Your task to perform on an android device: create a new album in the google photos Image 0: 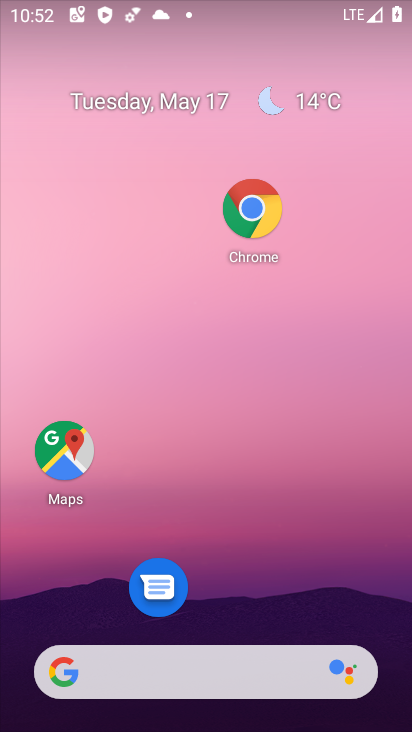
Step 0: drag from (266, 599) to (252, 233)
Your task to perform on an android device: create a new album in the google photos Image 1: 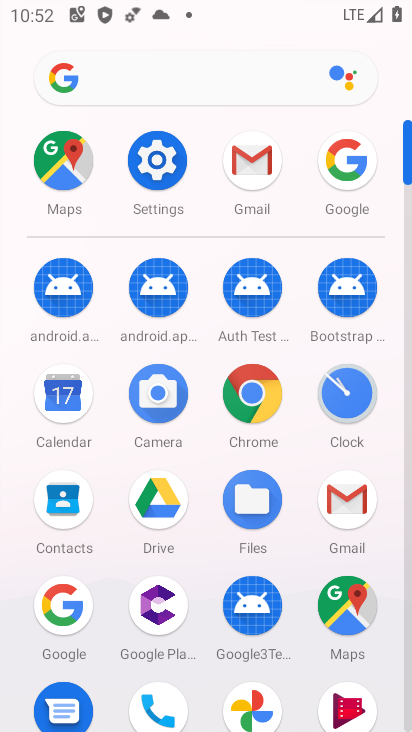
Step 1: click (268, 694)
Your task to perform on an android device: create a new album in the google photos Image 2: 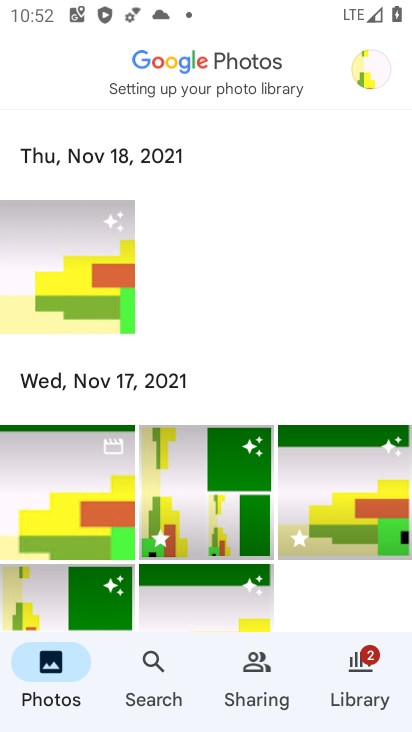
Step 2: click (371, 670)
Your task to perform on an android device: create a new album in the google photos Image 3: 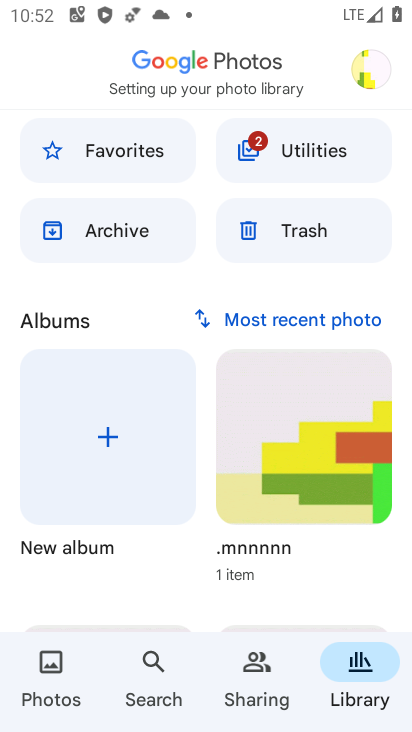
Step 3: click (112, 435)
Your task to perform on an android device: create a new album in the google photos Image 4: 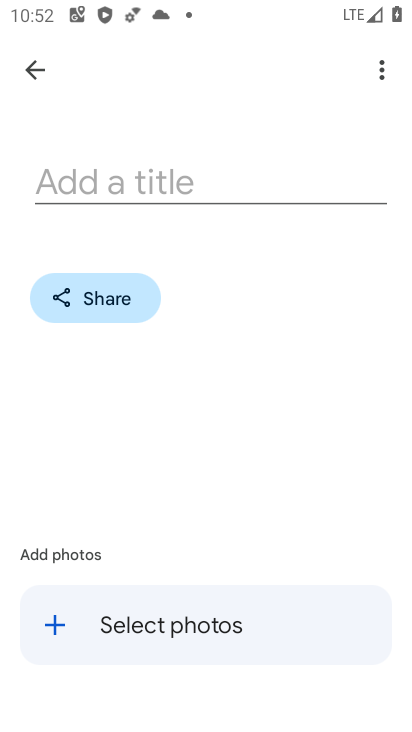
Step 4: click (243, 180)
Your task to perform on an android device: create a new album in the google photos Image 5: 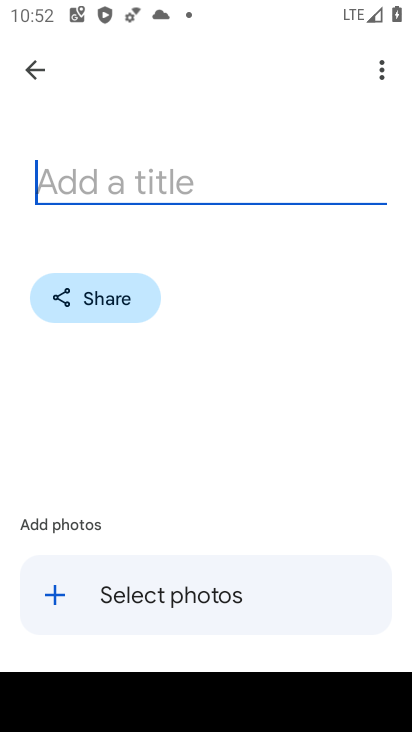
Step 5: type "yguyyu"
Your task to perform on an android device: create a new album in the google photos Image 6: 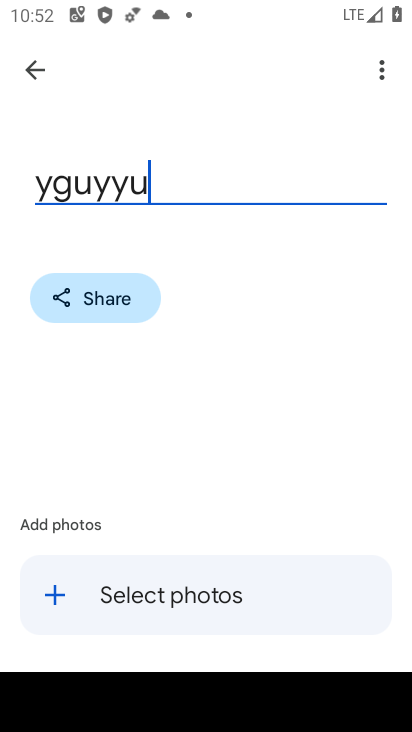
Step 6: click (58, 590)
Your task to perform on an android device: create a new album in the google photos Image 7: 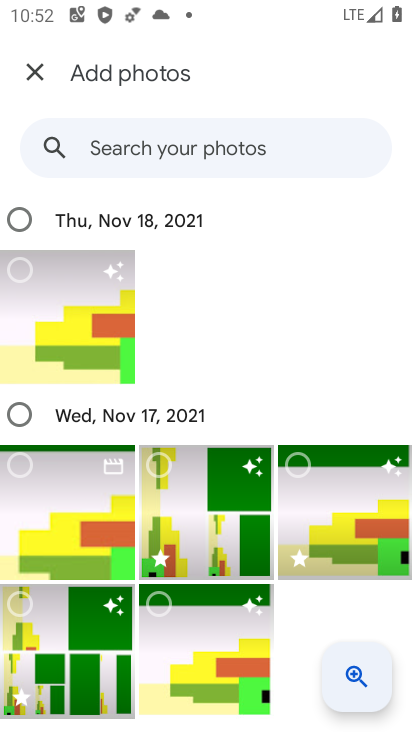
Step 7: click (21, 420)
Your task to perform on an android device: create a new album in the google photos Image 8: 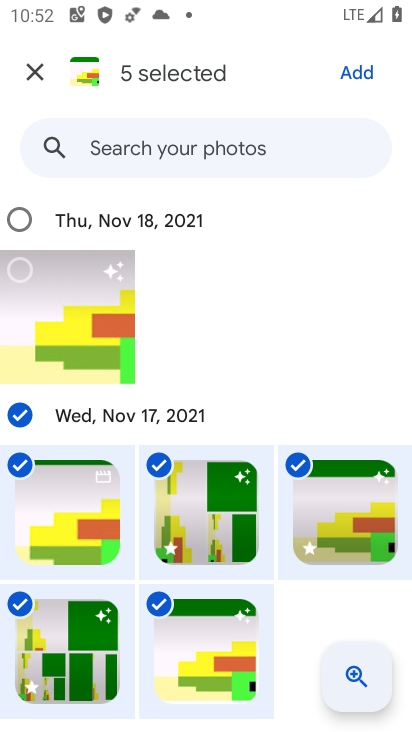
Step 8: click (362, 66)
Your task to perform on an android device: create a new album in the google photos Image 9: 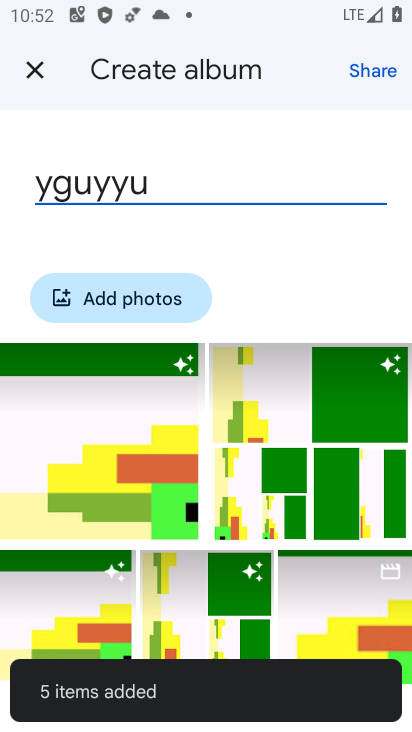
Step 9: task complete